Your task to perform on an android device: Go to network settings Image 0: 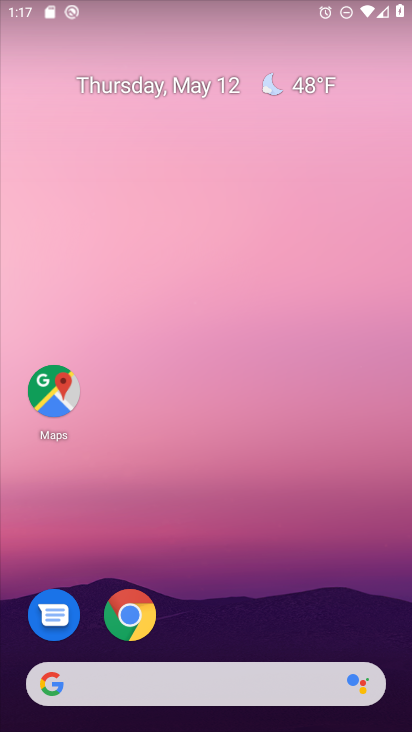
Step 0: drag from (195, 638) to (257, 40)
Your task to perform on an android device: Go to network settings Image 1: 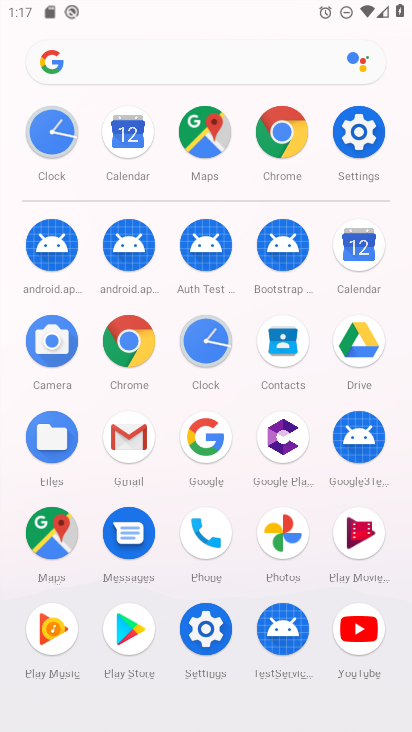
Step 1: click (367, 137)
Your task to perform on an android device: Go to network settings Image 2: 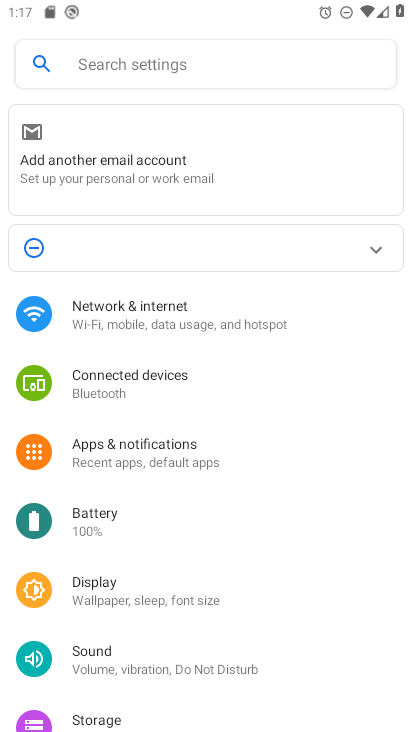
Step 2: click (193, 314)
Your task to perform on an android device: Go to network settings Image 3: 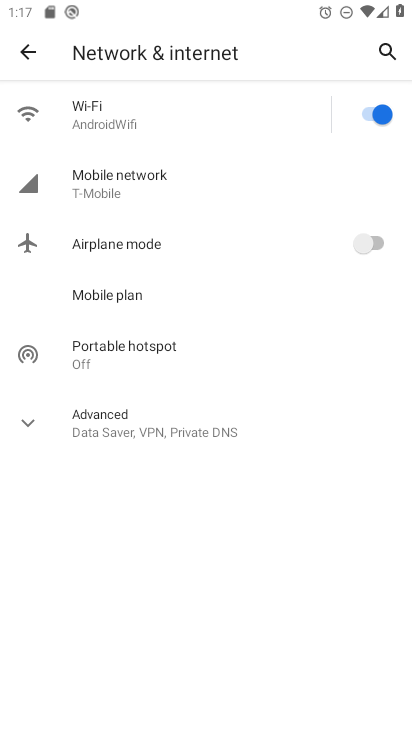
Step 3: click (157, 191)
Your task to perform on an android device: Go to network settings Image 4: 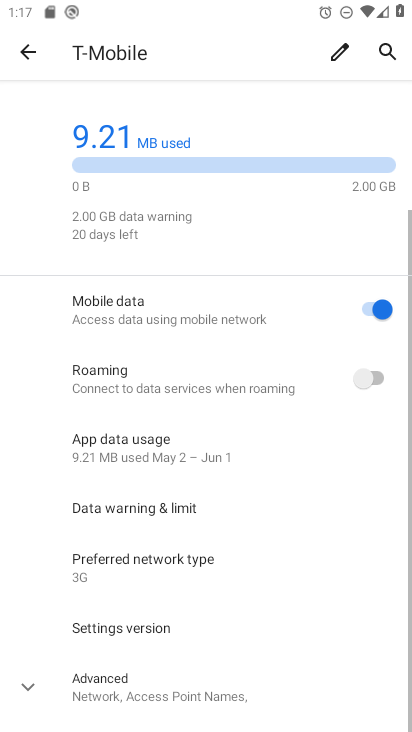
Step 4: task complete